Your task to perform on an android device: Search for seafood restaurants on Google Maps Image 0: 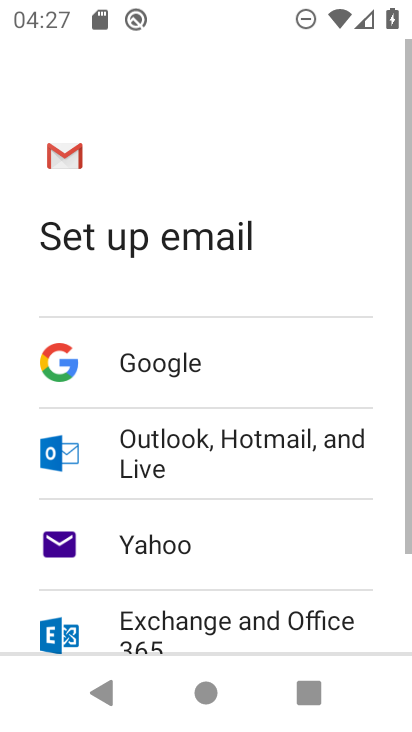
Step 0: press home button
Your task to perform on an android device: Search for seafood restaurants on Google Maps Image 1: 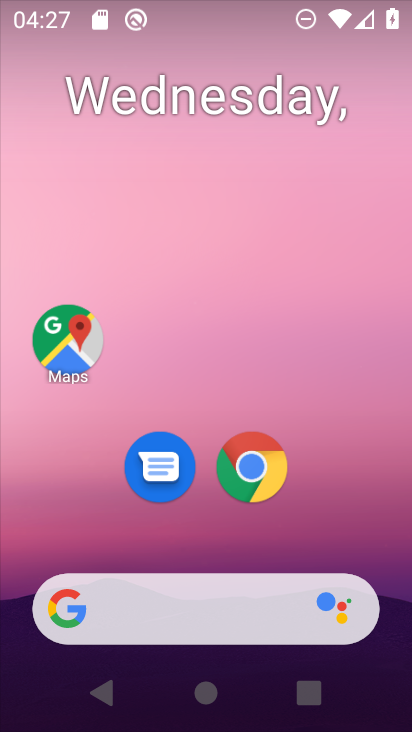
Step 1: click (67, 337)
Your task to perform on an android device: Search for seafood restaurants on Google Maps Image 2: 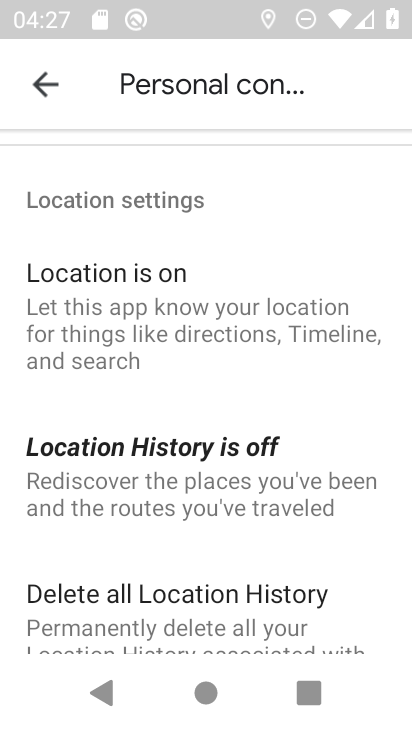
Step 2: press back button
Your task to perform on an android device: Search for seafood restaurants on Google Maps Image 3: 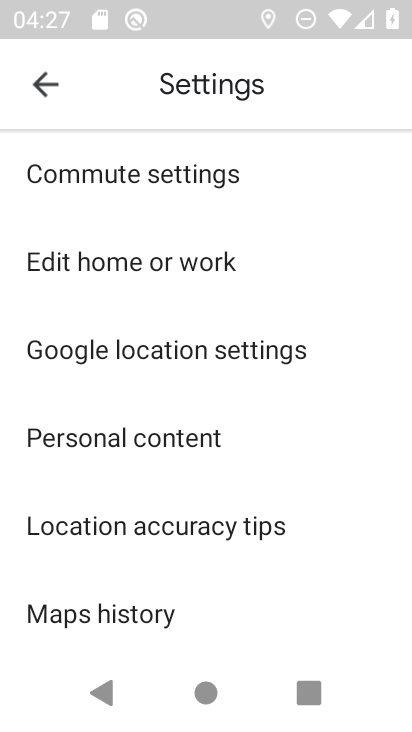
Step 3: press back button
Your task to perform on an android device: Search for seafood restaurants on Google Maps Image 4: 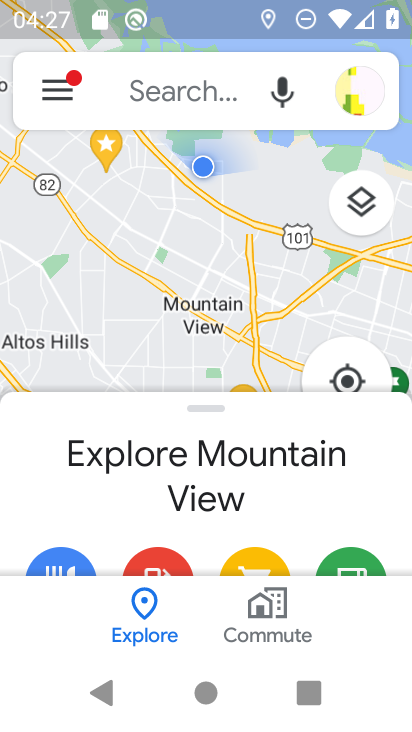
Step 4: click (156, 90)
Your task to perform on an android device: Search for seafood restaurants on Google Maps Image 5: 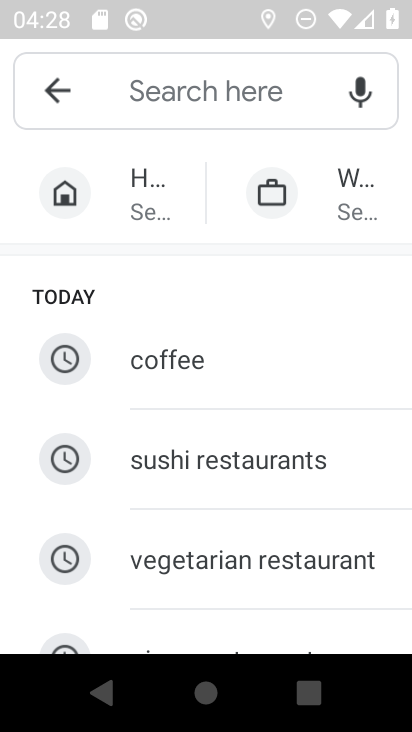
Step 5: type "seafood restaurants"
Your task to perform on an android device: Search for seafood restaurants on Google Maps Image 6: 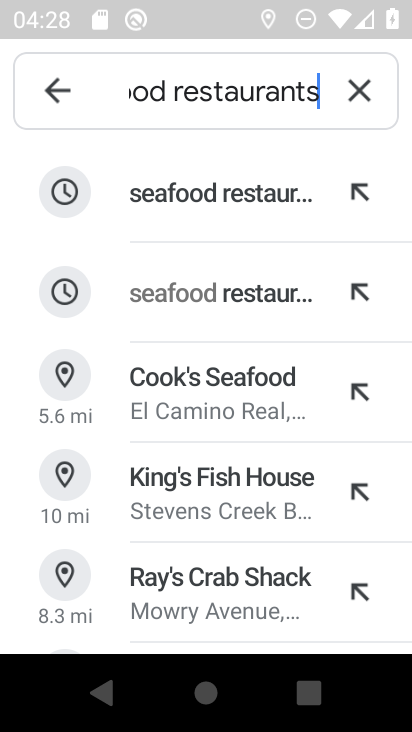
Step 6: click (217, 190)
Your task to perform on an android device: Search for seafood restaurants on Google Maps Image 7: 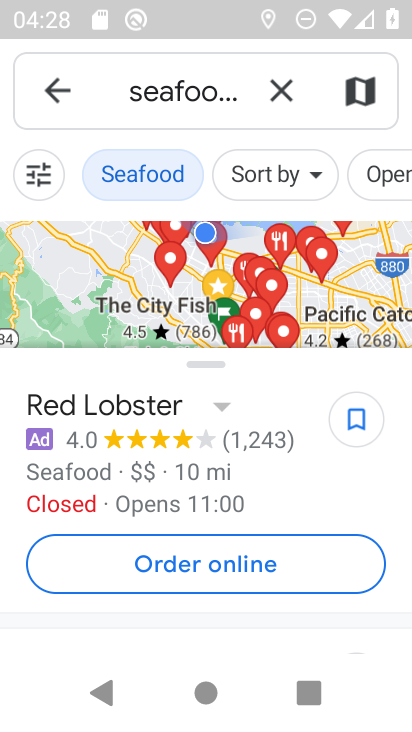
Step 7: task complete